Your task to perform on an android device: see tabs open on other devices in the chrome app Image 0: 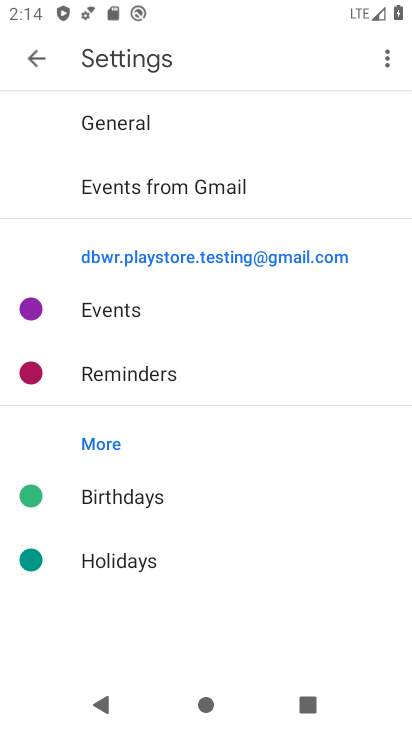
Step 0: press home button
Your task to perform on an android device: see tabs open on other devices in the chrome app Image 1: 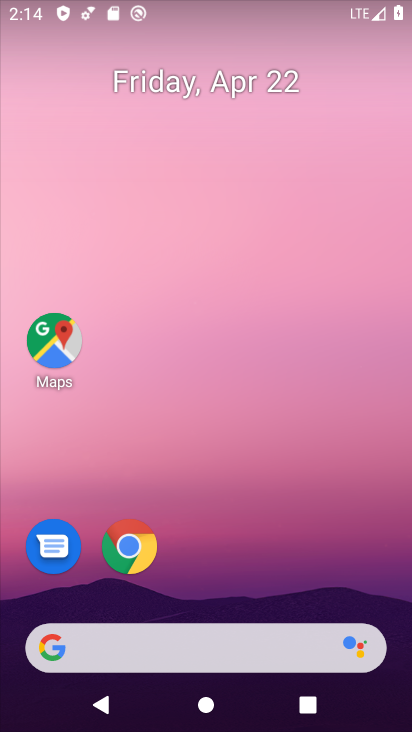
Step 1: drag from (256, 535) to (265, 159)
Your task to perform on an android device: see tabs open on other devices in the chrome app Image 2: 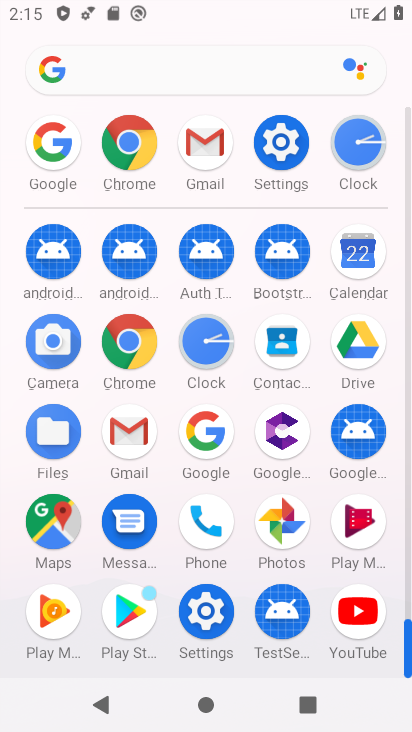
Step 2: click (132, 347)
Your task to perform on an android device: see tabs open on other devices in the chrome app Image 3: 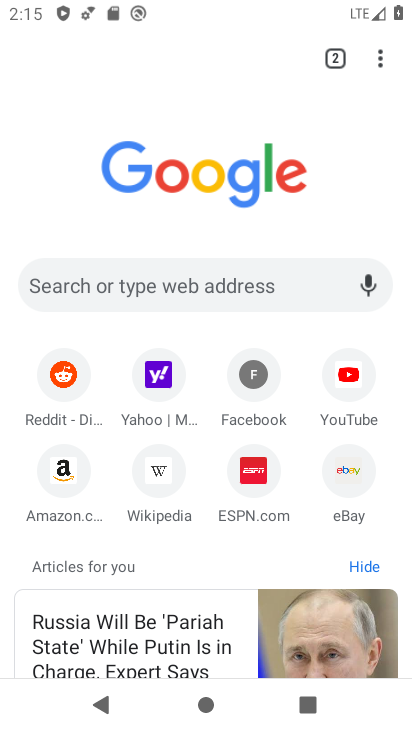
Step 3: click (382, 69)
Your task to perform on an android device: see tabs open on other devices in the chrome app Image 4: 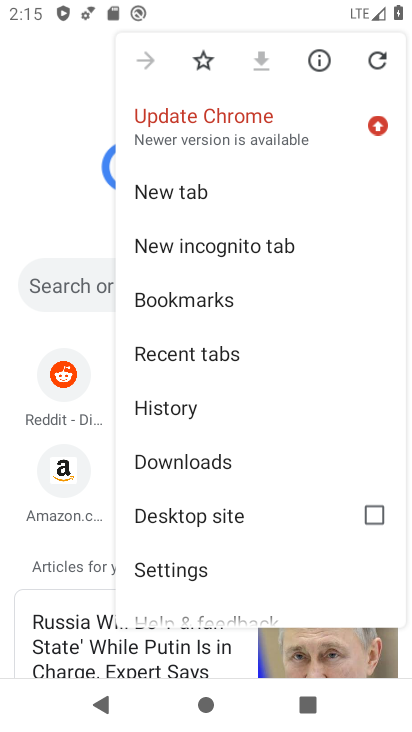
Step 4: drag from (227, 408) to (250, 277)
Your task to perform on an android device: see tabs open on other devices in the chrome app Image 5: 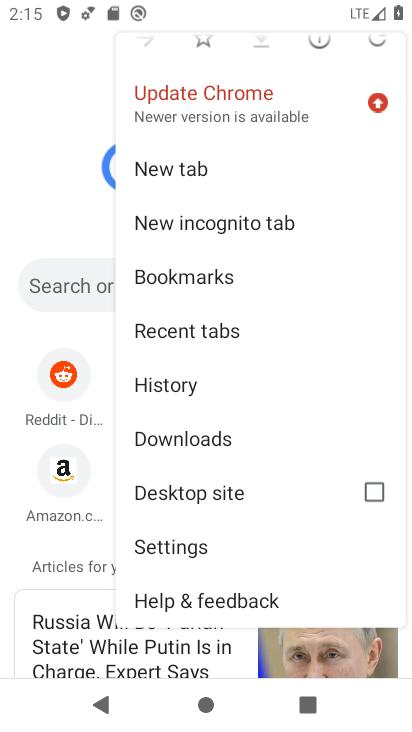
Step 5: click (46, 226)
Your task to perform on an android device: see tabs open on other devices in the chrome app Image 6: 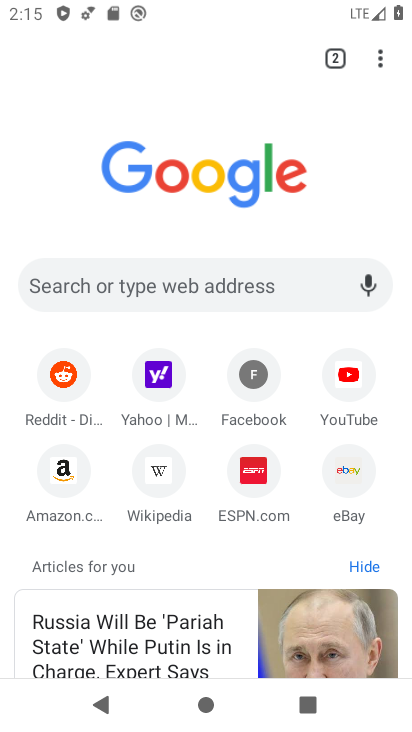
Step 6: task complete